Your task to perform on an android device: toggle data saver in the chrome app Image 0: 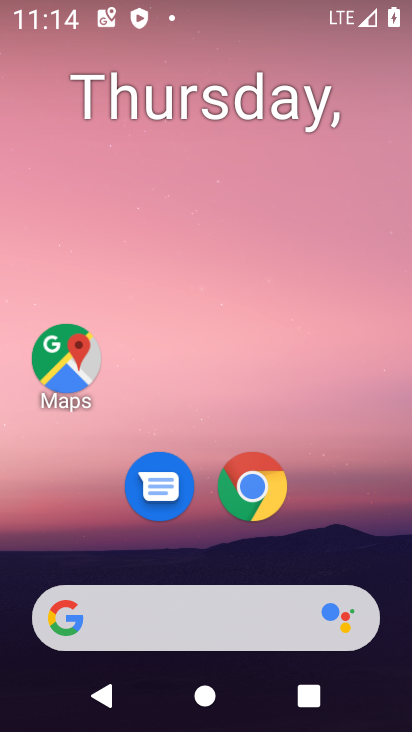
Step 0: click (253, 502)
Your task to perform on an android device: toggle data saver in the chrome app Image 1: 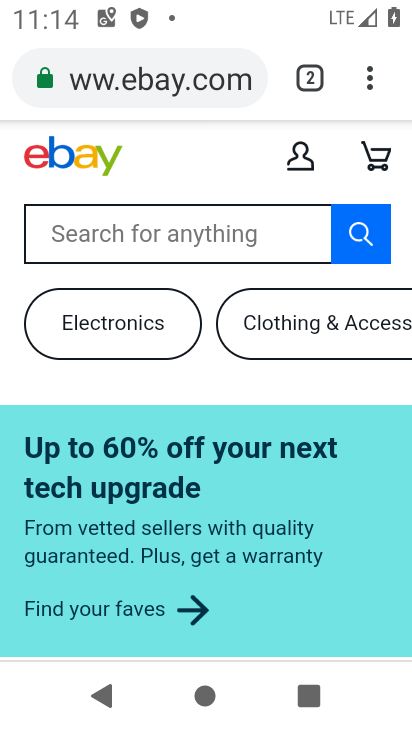
Step 1: drag from (373, 79) to (128, 548)
Your task to perform on an android device: toggle data saver in the chrome app Image 2: 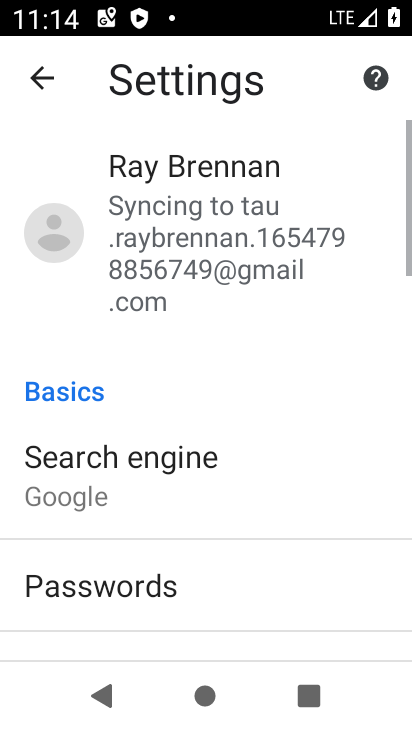
Step 2: drag from (141, 547) to (242, 12)
Your task to perform on an android device: toggle data saver in the chrome app Image 3: 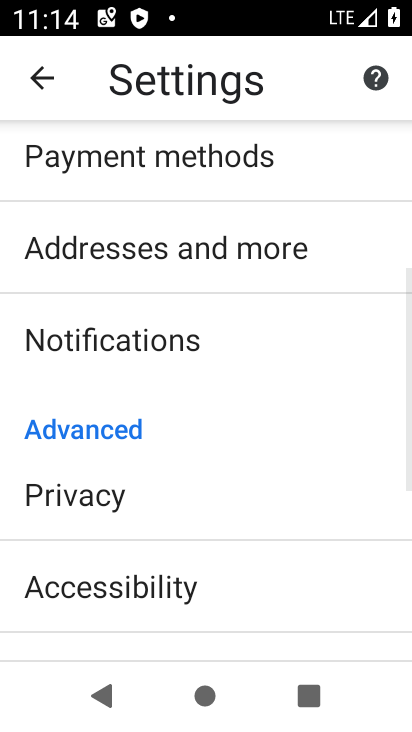
Step 3: drag from (159, 589) to (247, 38)
Your task to perform on an android device: toggle data saver in the chrome app Image 4: 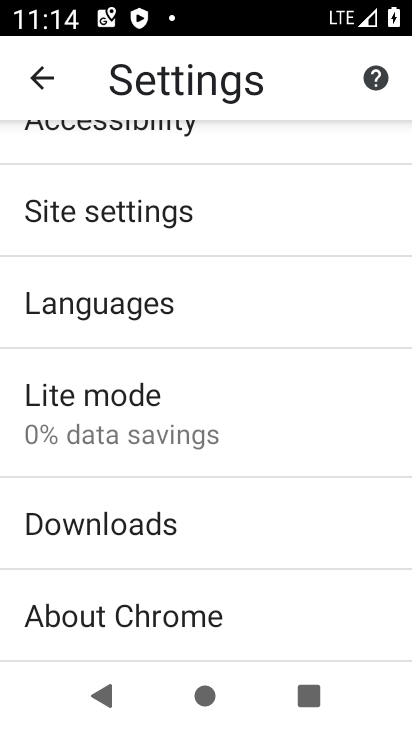
Step 4: click (58, 419)
Your task to perform on an android device: toggle data saver in the chrome app Image 5: 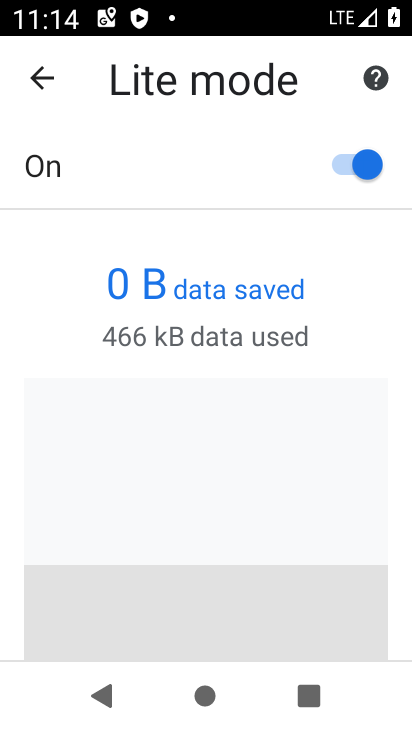
Step 5: click (369, 167)
Your task to perform on an android device: toggle data saver in the chrome app Image 6: 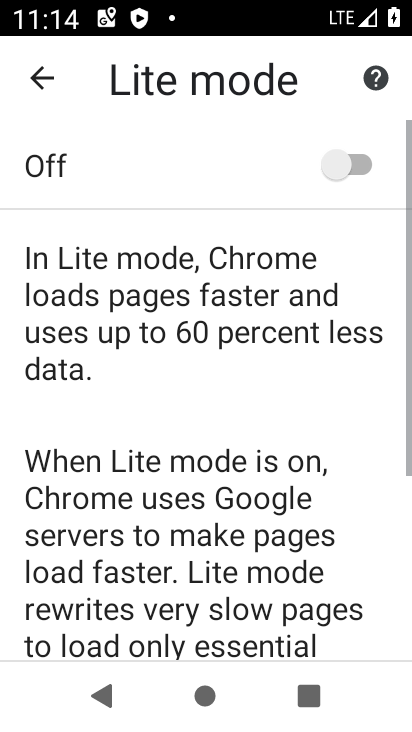
Step 6: task complete